Your task to perform on an android device: Open wifi settings Image 0: 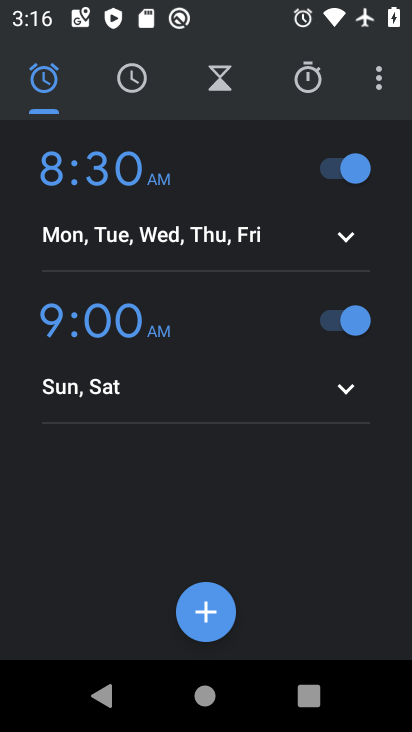
Step 0: press home button
Your task to perform on an android device: Open wifi settings Image 1: 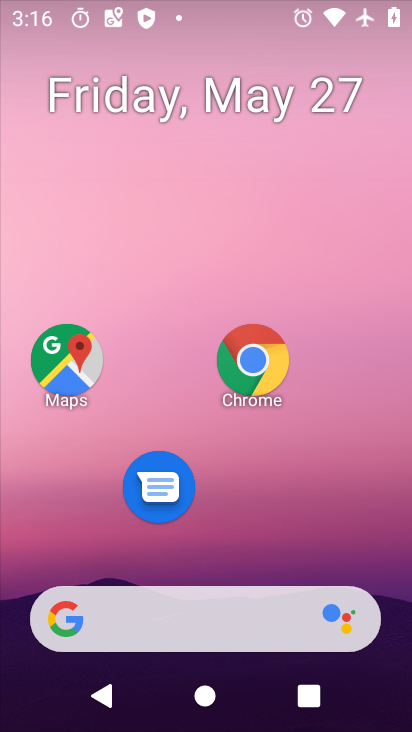
Step 1: drag from (269, 538) to (278, 85)
Your task to perform on an android device: Open wifi settings Image 2: 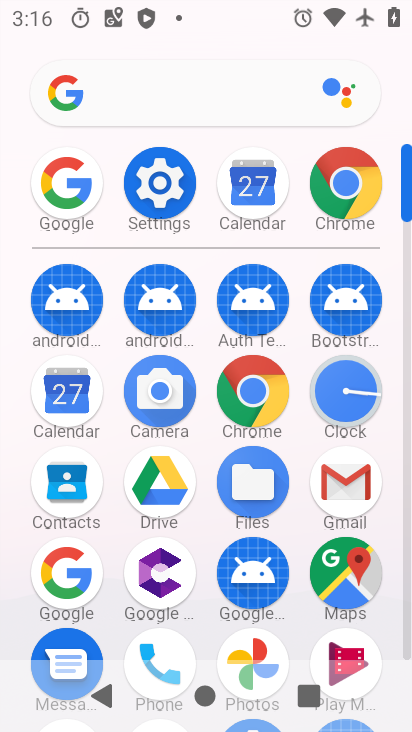
Step 2: click (163, 181)
Your task to perform on an android device: Open wifi settings Image 3: 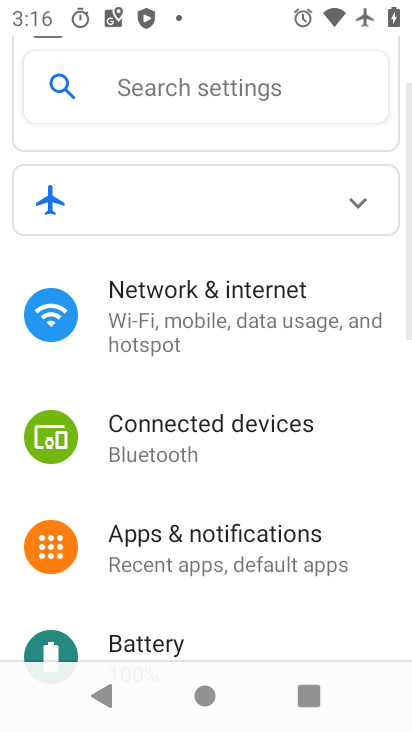
Step 3: click (202, 336)
Your task to perform on an android device: Open wifi settings Image 4: 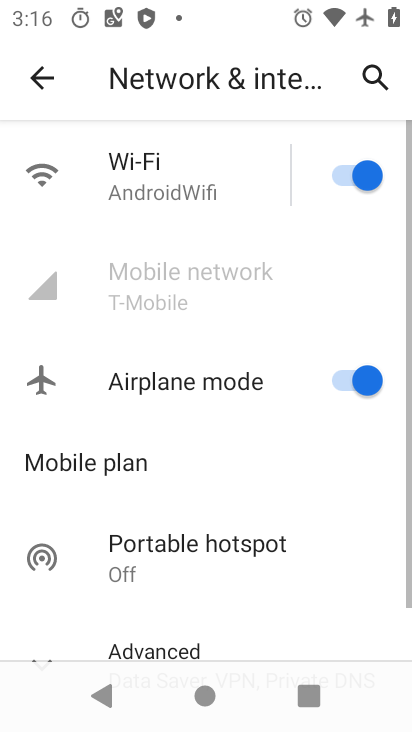
Step 4: click (130, 173)
Your task to perform on an android device: Open wifi settings Image 5: 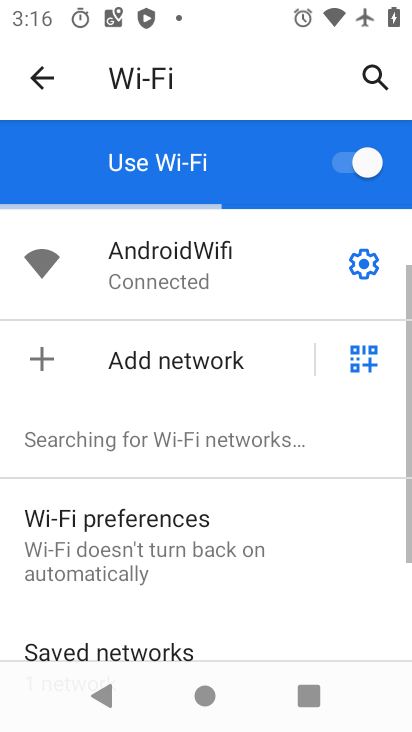
Step 5: click (212, 257)
Your task to perform on an android device: Open wifi settings Image 6: 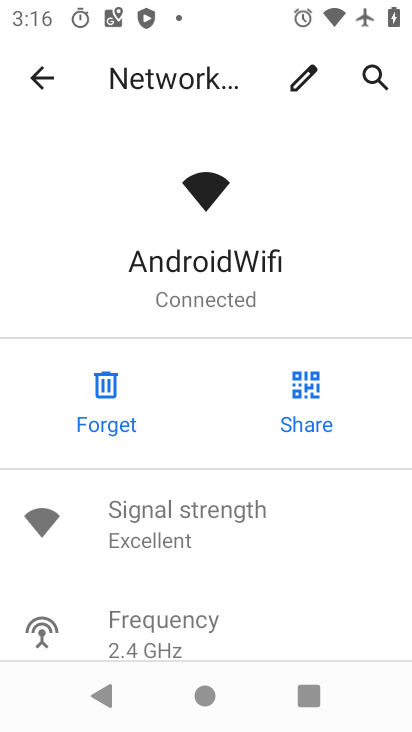
Step 6: task complete